Your task to perform on an android device: Open calendar and show me the second week of next month Image 0: 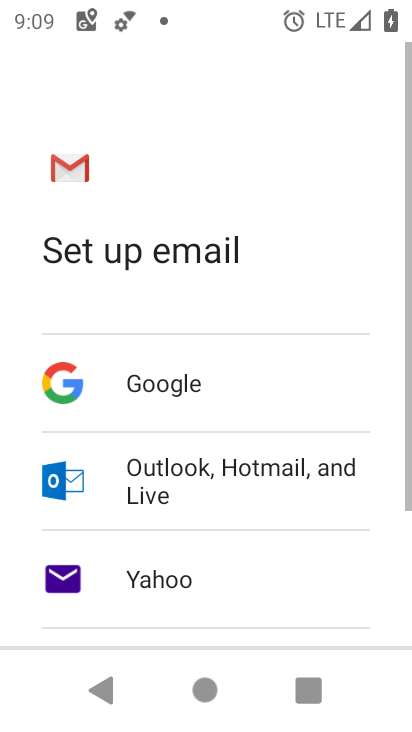
Step 0: press home button
Your task to perform on an android device: Open calendar and show me the second week of next month Image 1: 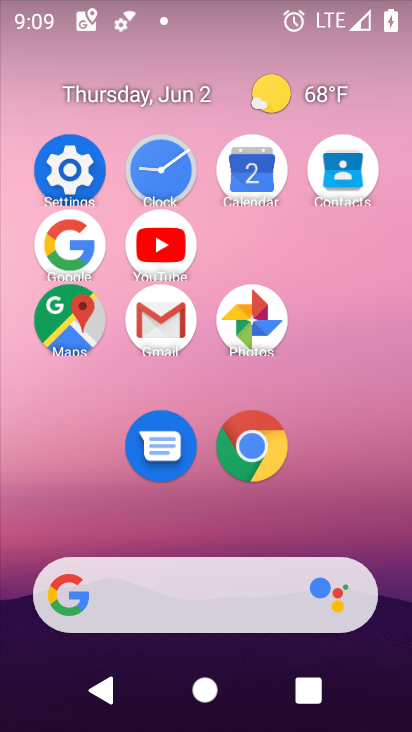
Step 1: click (267, 167)
Your task to perform on an android device: Open calendar and show me the second week of next month Image 2: 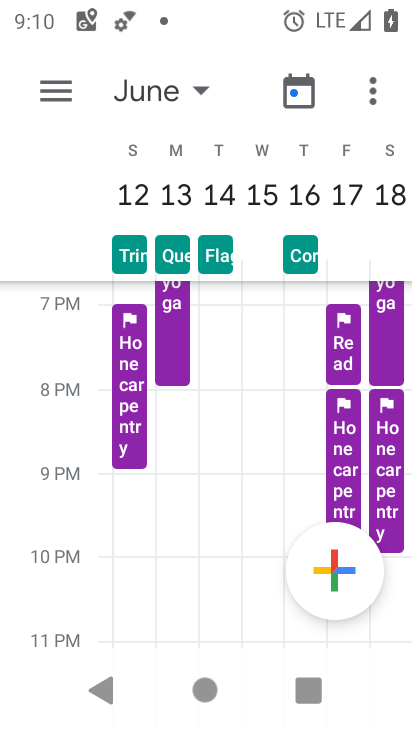
Step 2: task complete